Your task to perform on an android device: Go to Google Image 0: 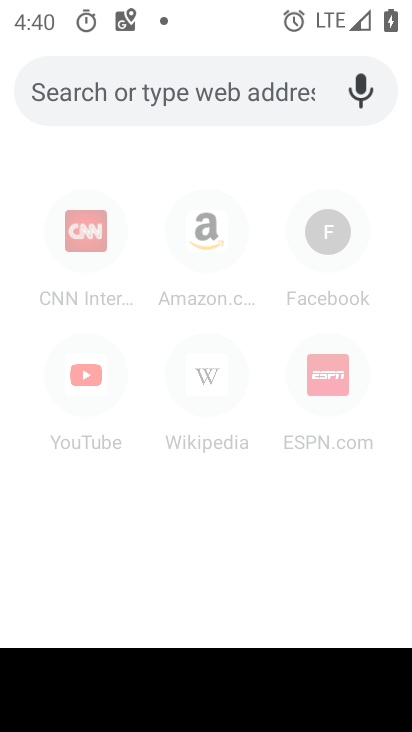
Step 0: drag from (297, 635) to (241, 123)
Your task to perform on an android device: Go to Google Image 1: 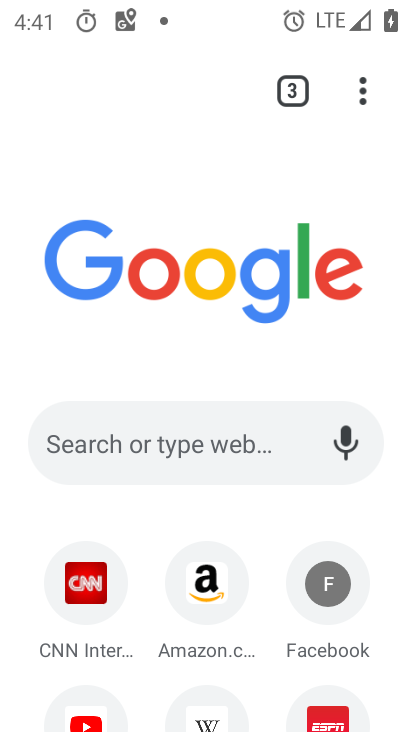
Step 1: task complete